Your task to perform on an android device: find snoozed emails in the gmail app Image 0: 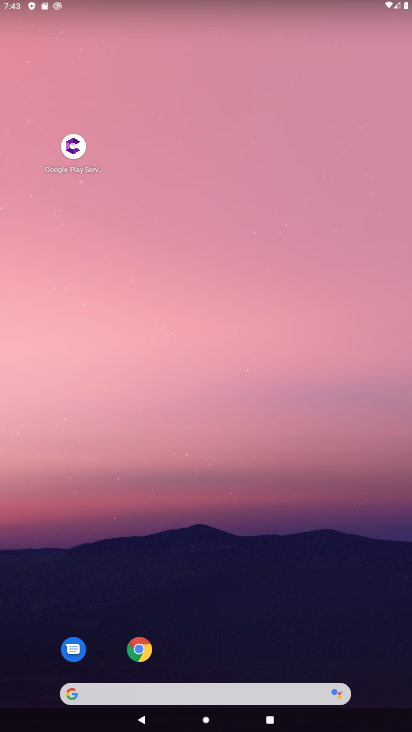
Step 0: drag from (230, 449) to (261, 52)
Your task to perform on an android device: find snoozed emails in the gmail app Image 1: 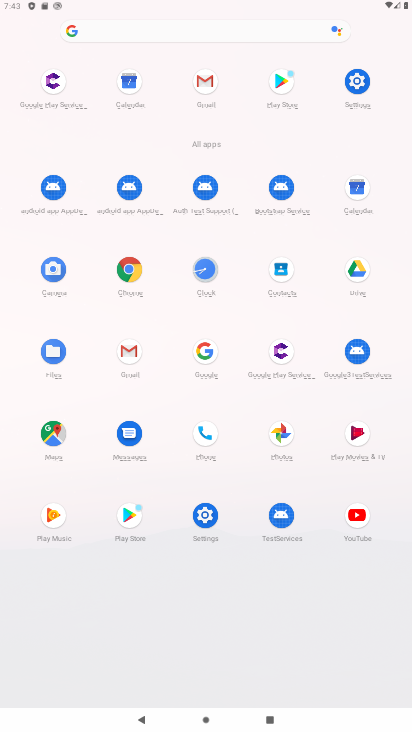
Step 1: click (132, 360)
Your task to perform on an android device: find snoozed emails in the gmail app Image 2: 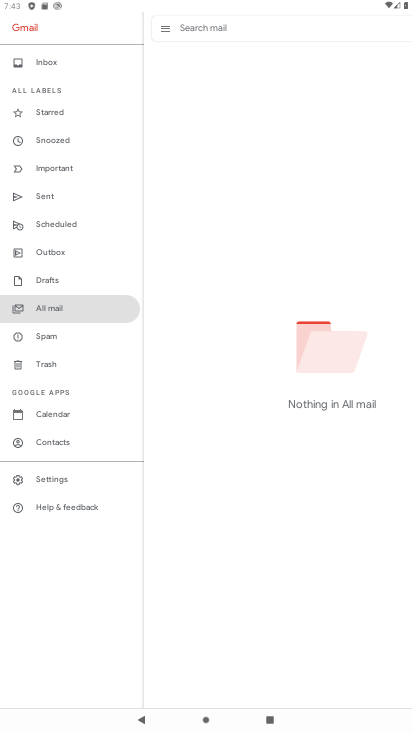
Step 2: click (29, 138)
Your task to perform on an android device: find snoozed emails in the gmail app Image 3: 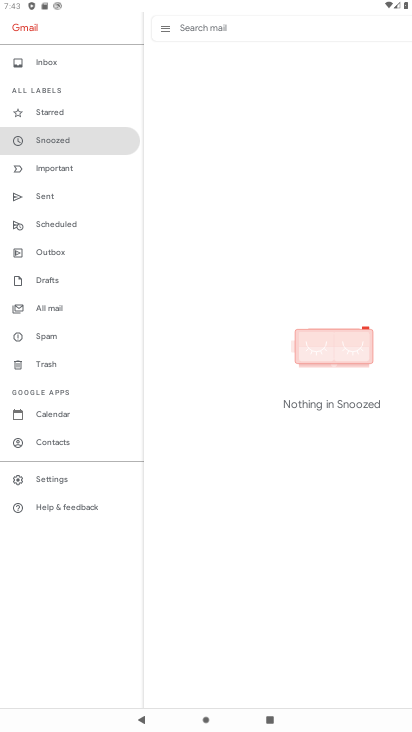
Step 3: task complete